Your task to perform on an android device: open wifi settings Image 0: 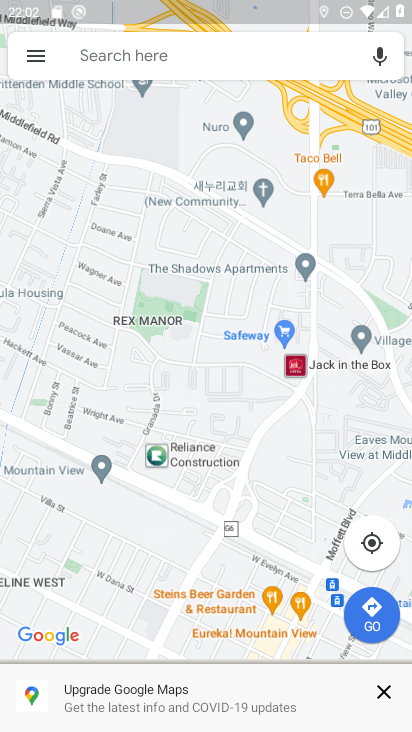
Step 0: press home button
Your task to perform on an android device: open wifi settings Image 1: 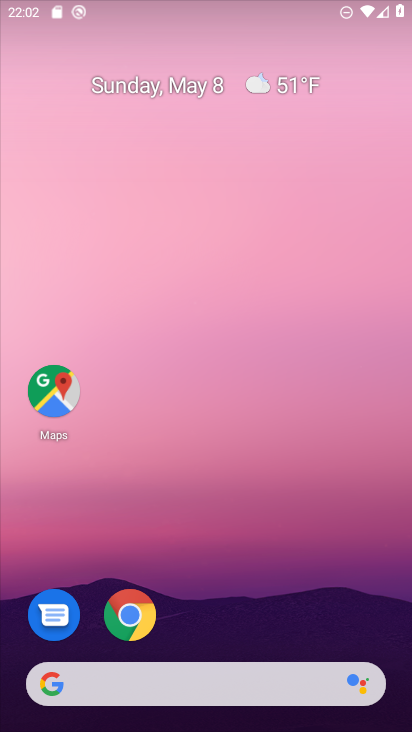
Step 1: drag from (282, 609) to (284, 16)
Your task to perform on an android device: open wifi settings Image 2: 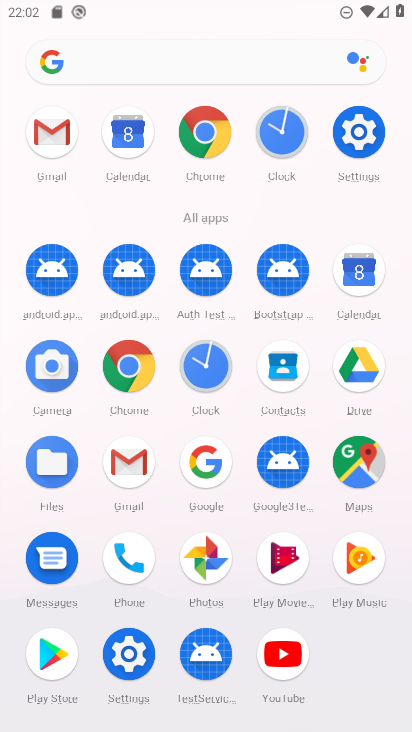
Step 2: click (342, 134)
Your task to perform on an android device: open wifi settings Image 3: 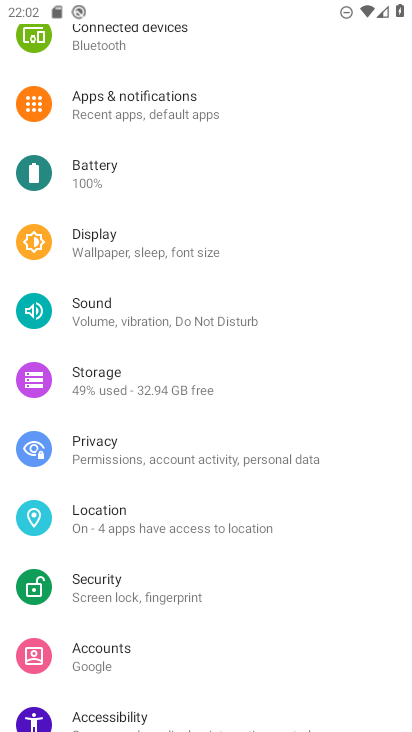
Step 3: drag from (251, 152) to (287, 604)
Your task to perform on an android device: open wifi settings Image 4: 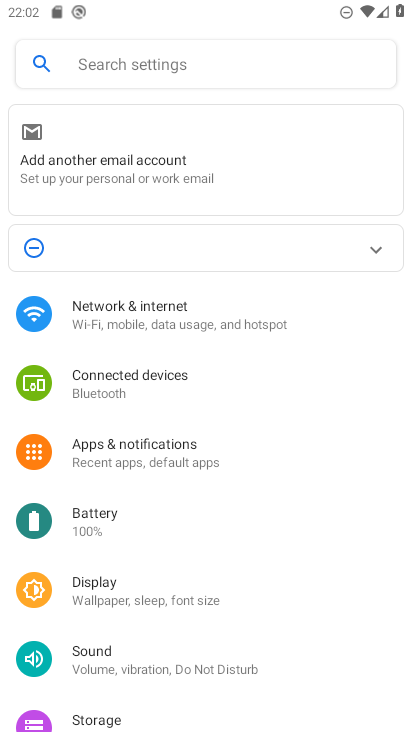
Step 4: click (138, 317)
Your task to perform on an android device: open wifi settings Image 5: 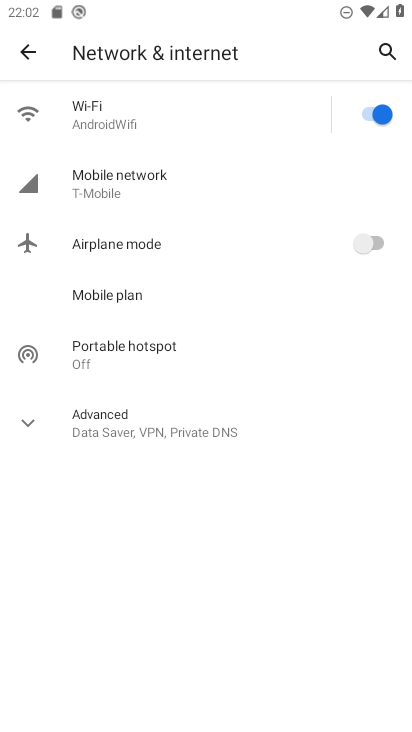
Step 5: click (153, 125)
Your task to perform on an android device: open wifi settings Image 6: 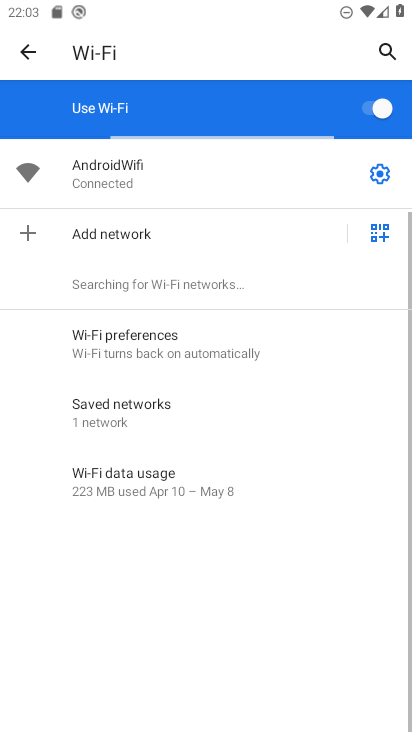
Step 6: click (375, 174)
Your task to perform on an android device: open wifi settings Image 7: 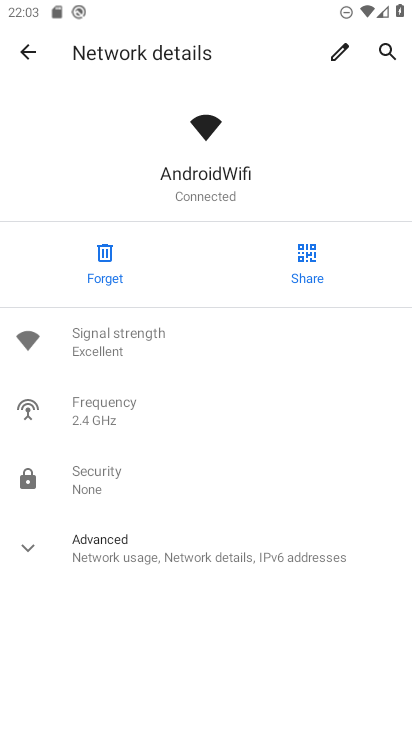
Step 7: task complete